Your task to perform on an android device: What's on Reddit this week Image 0: 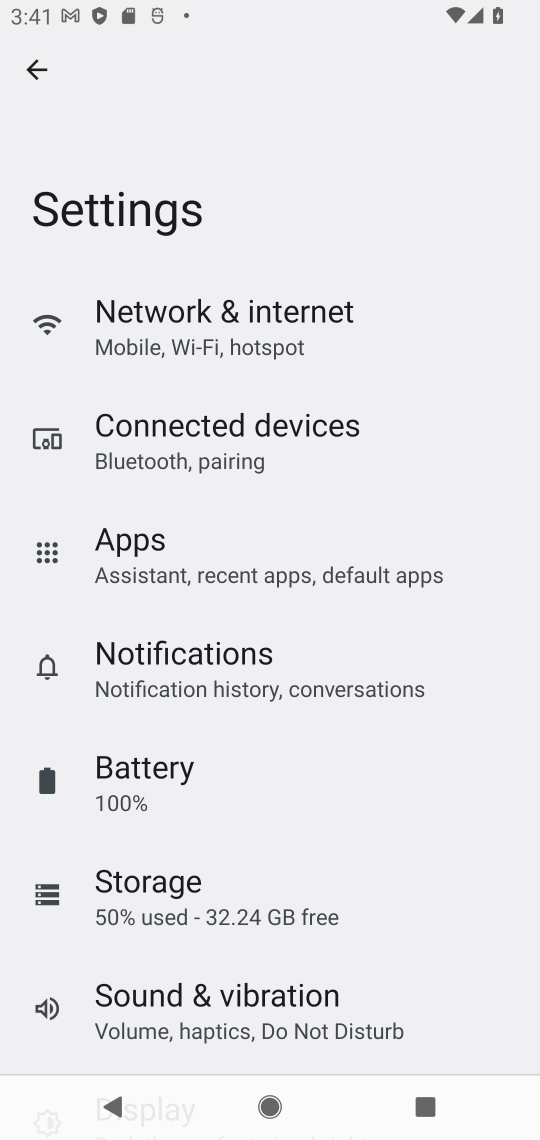
Step 0: press home button
Your task to perform on an android device: What's on Reddit this week Image 1: 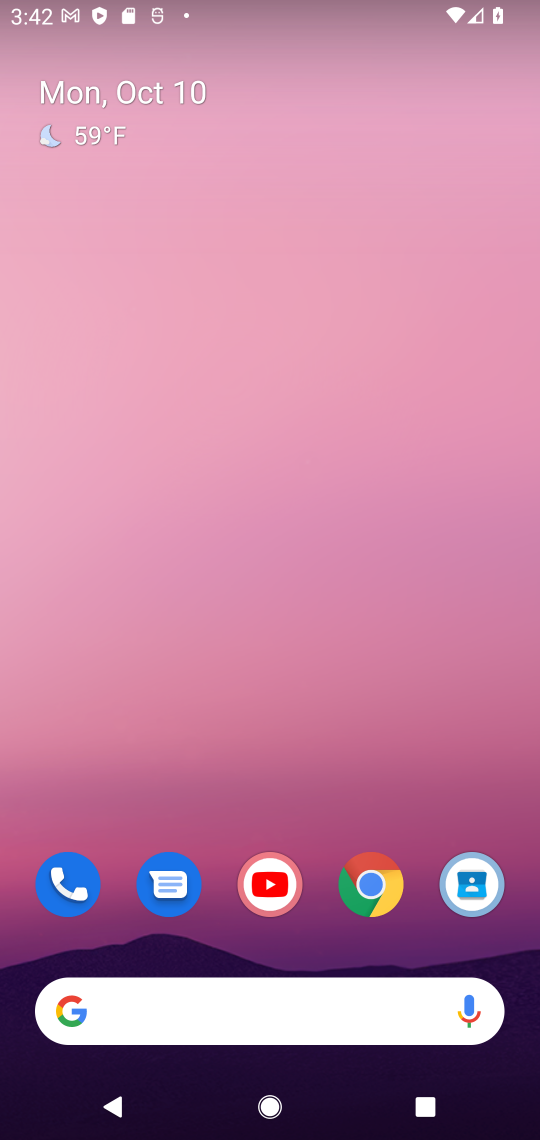
Step 1: click (378, 884)
Your task to perform on an android device: What's on Reddit this week Image 2: 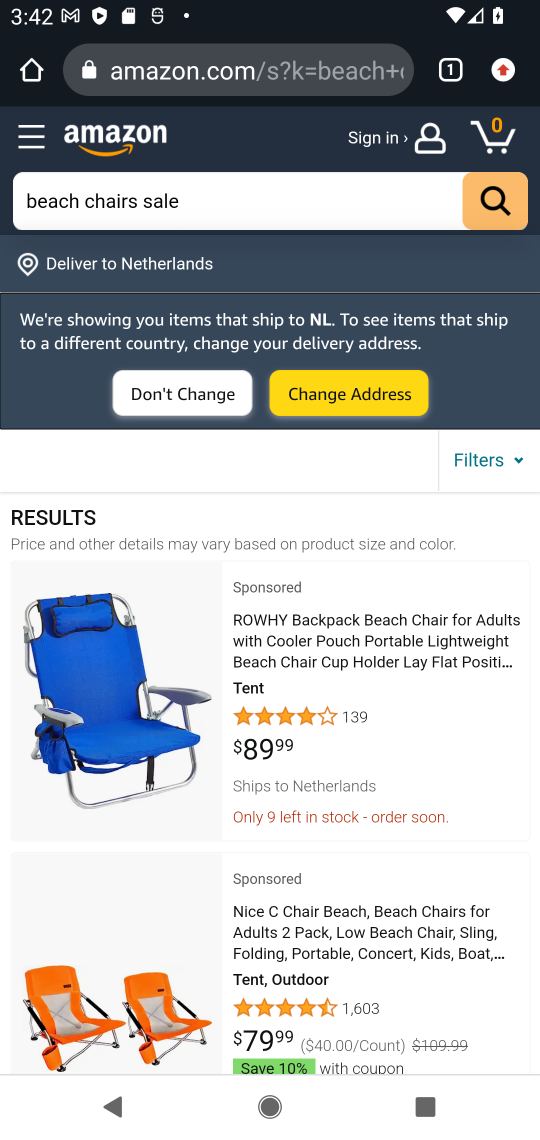
Step 2: click (339, 78)
Your task to perform on an android device: What's on Reddit this week Image 3: 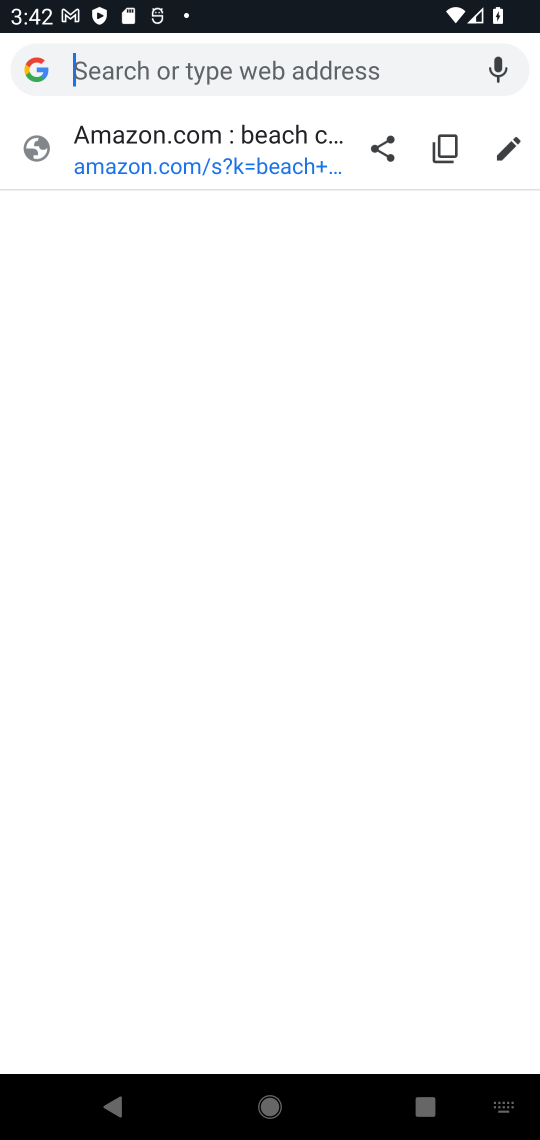
Step 3: type "What's on Reddit this week"
Your task to perform on an android device: What's on Reddit this week Image 4: 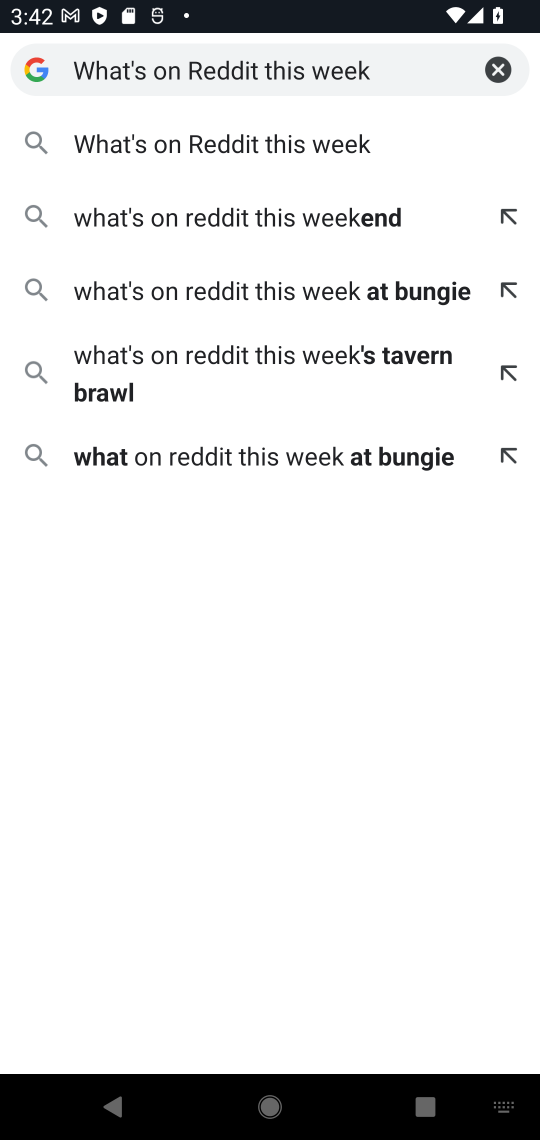
Step 4: click (218, 148)
Your task to perform on an android device: What's on Reddit this week Image 5: 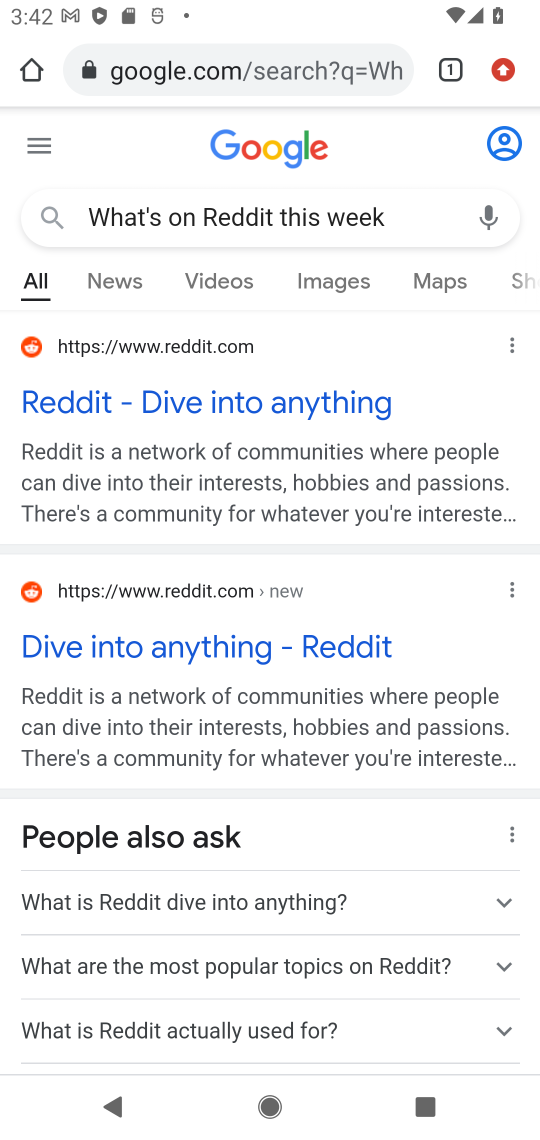
Step 5: click (183, 443)
Your task to perform on an android device: What's on Reddit this week Image 6: 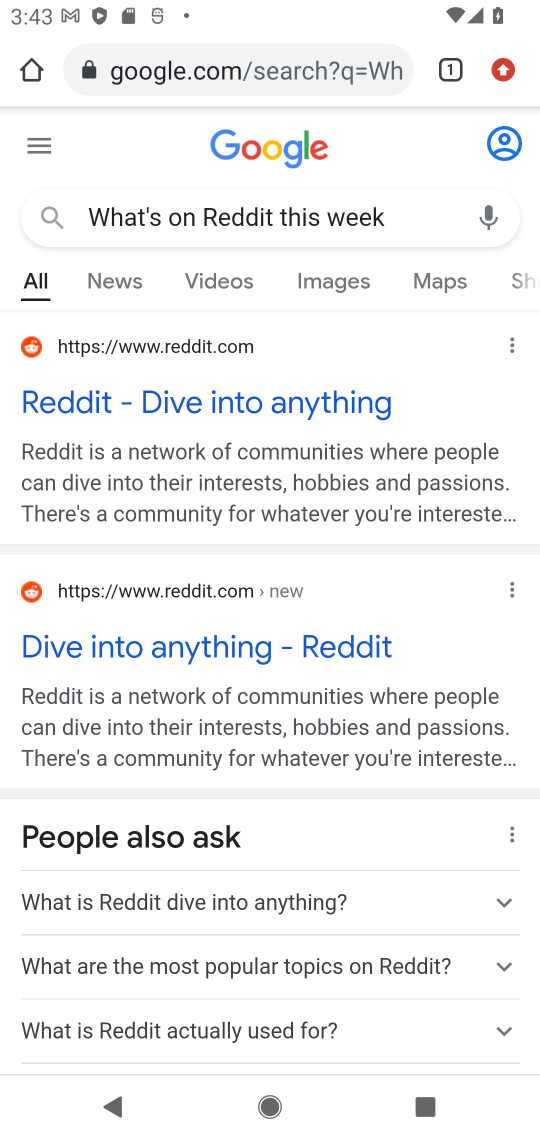
Step 6: click (190, 390)
Your task to perform on an android device: What's on Reddit this week Image 7: 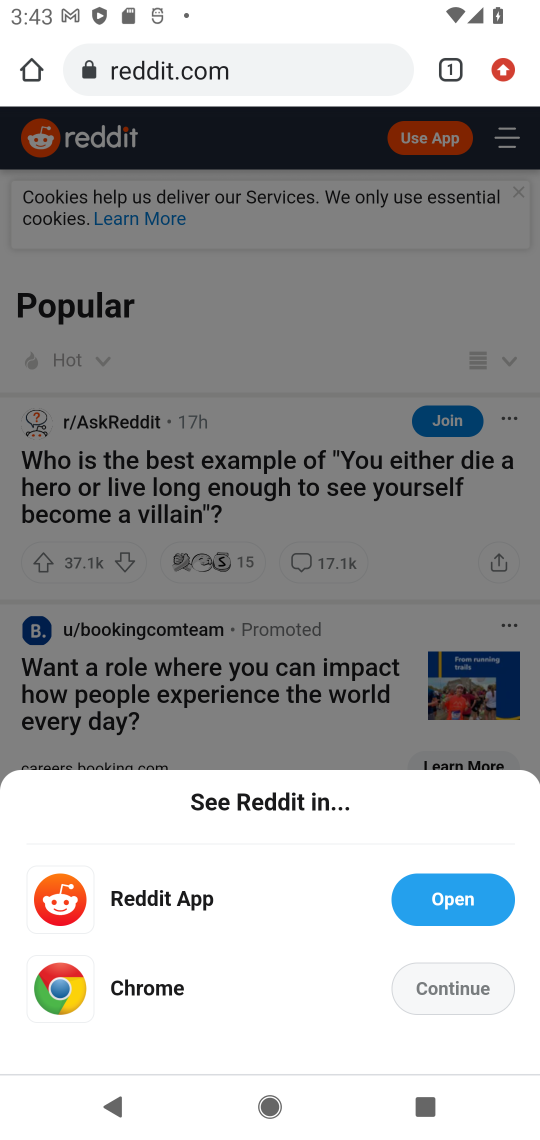
Step 7: click (438, 900)
Your task to perform on an android device: What's on Reddit this week Image 8: 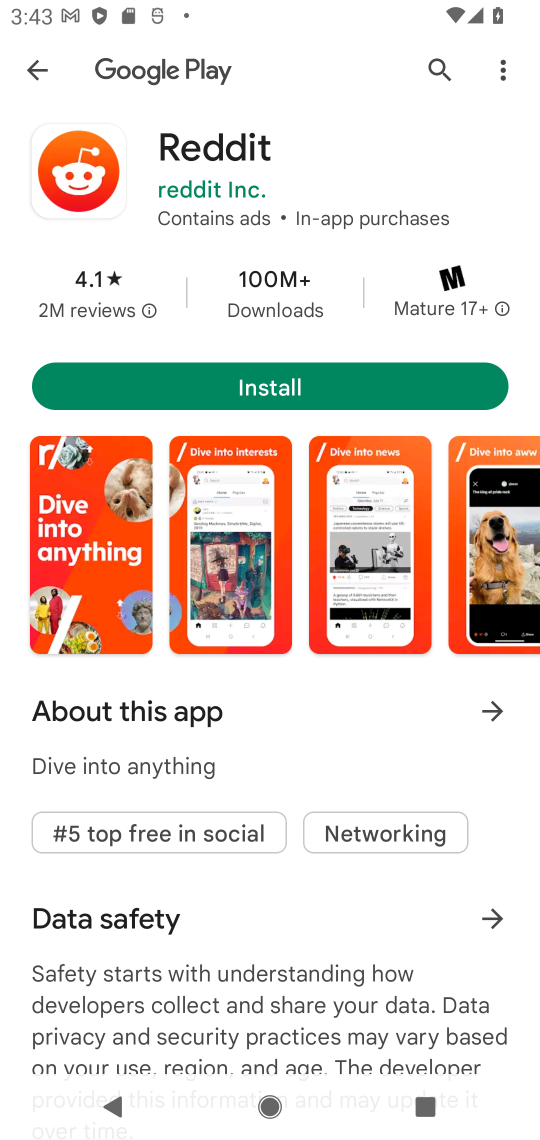
Step 8: task complete